Your task to perform on an android device: allow notifications from all sites in the chrome app Image 0: 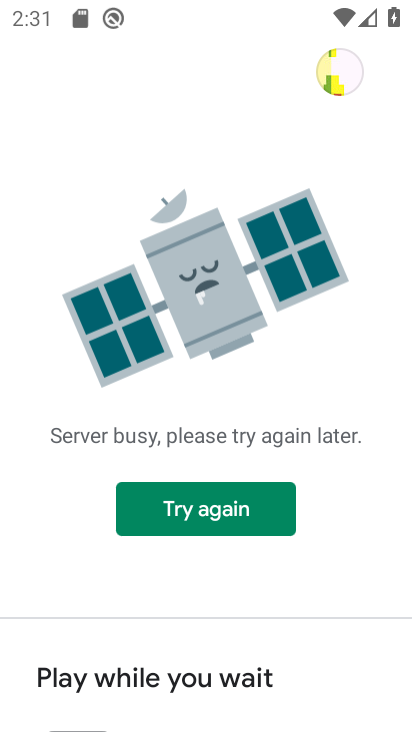
Step 0: press home button
Your task to perform on an android device: allow notifications from all sites in the chrome app Image 1: 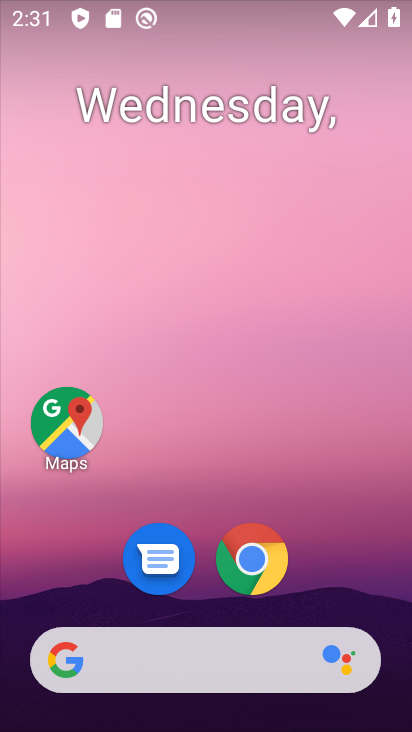
Step 1: drag from (270, 696) to (259, 253)
Your task to perform on an android device: allow notifications from all sites in the chrome app Image 2: 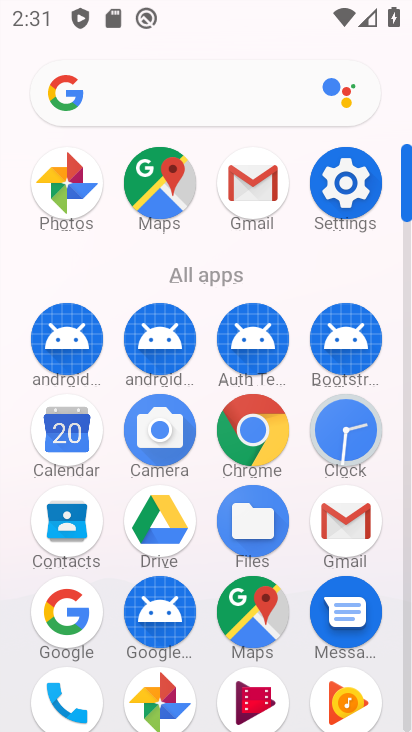
Step 2: click (236, 425)
Your task to perform on an android device: allow notifications from all sites in the chrome app Image 3: 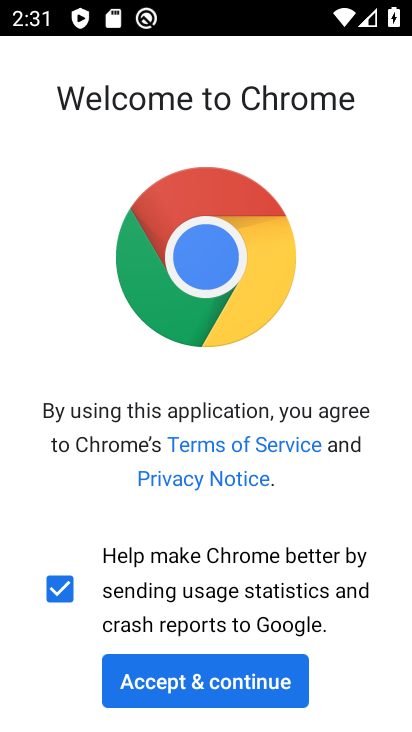
Step 3: click (179, 671)
Your task to perform on an android device: allow notifications from all sites in the chrome app Image 4: 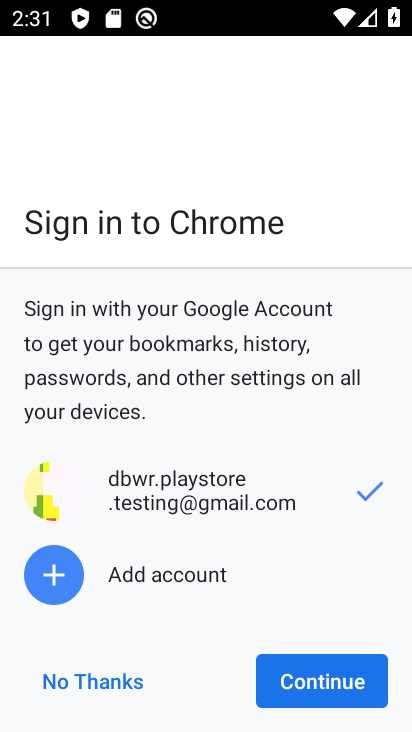
Step 4: click (308, 688)
Your task to perform on an android device: allow notifications from all sites in the chrome app Image 5: 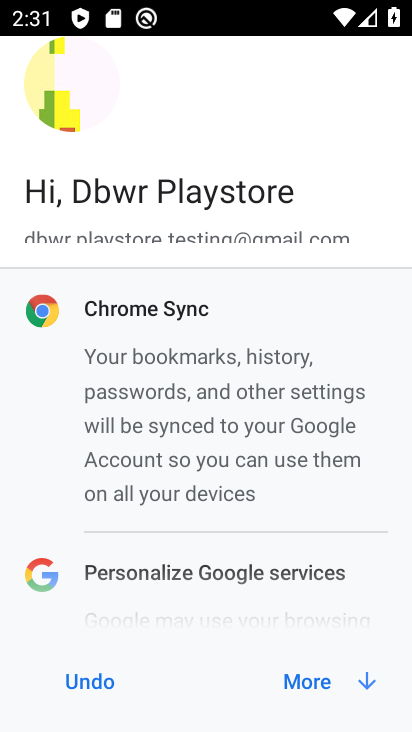
Step 5: click (359, 670)
Your task to perform on an android device: allow notifications from all sites in the chrome app Image 6: 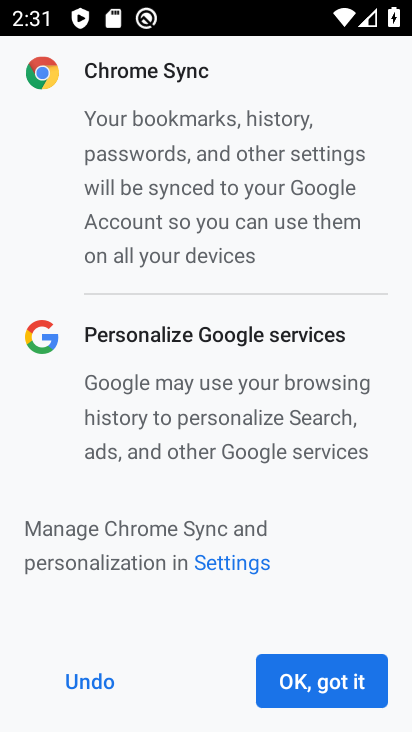
Step 6: click (335, 672)
Your task to perform on an android device: allow notifications from all sites in the chrome app Image 7: 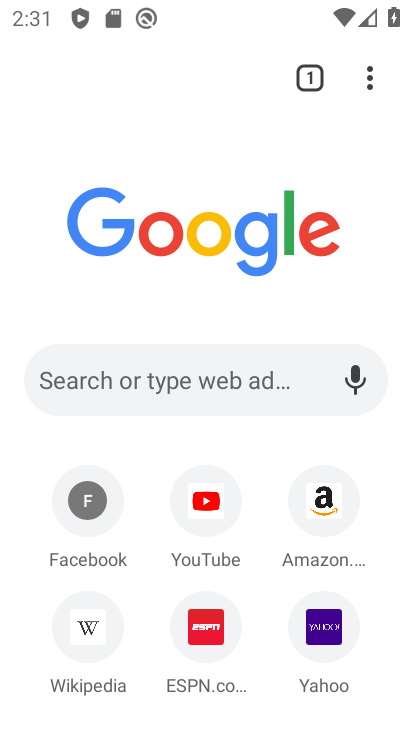
Step 7: click (359, 87)
Your task to perform on an android device: allow notifications from all sites in the chrome app Image 8: 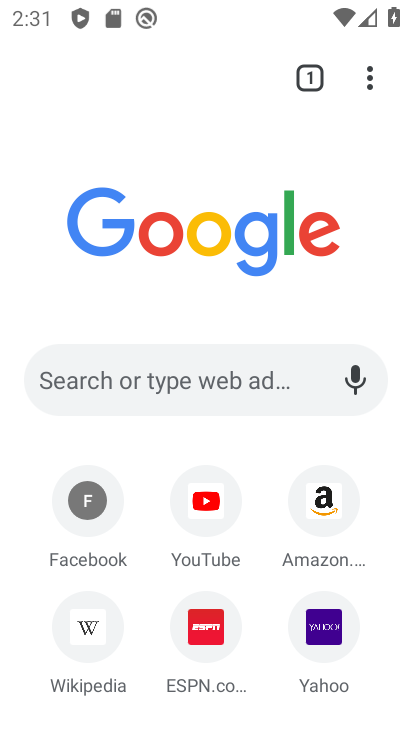
Step 8: click (367, 83)
Your task to perform on an android device: allow notifications from all sites in the chrome app Image 9: 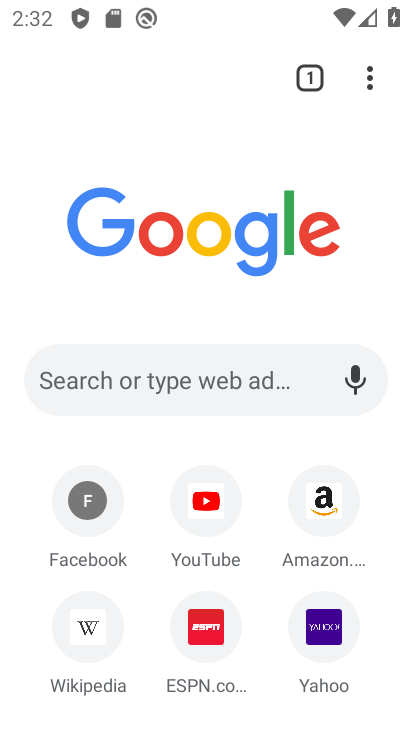
Step 9: click (365, 81)
Your task to perform on an android device: allow notifications from all sites in the chrome app Image 10: 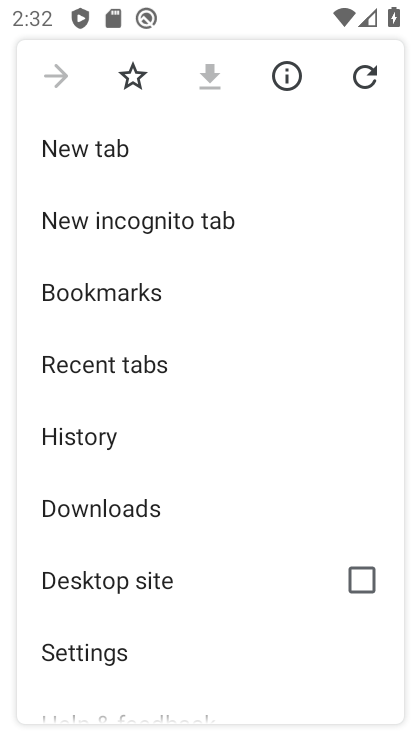
Step 10: click (88, 653)
Your task to perform on an android device: allow notifications from all sites in the chrome app Image 11: 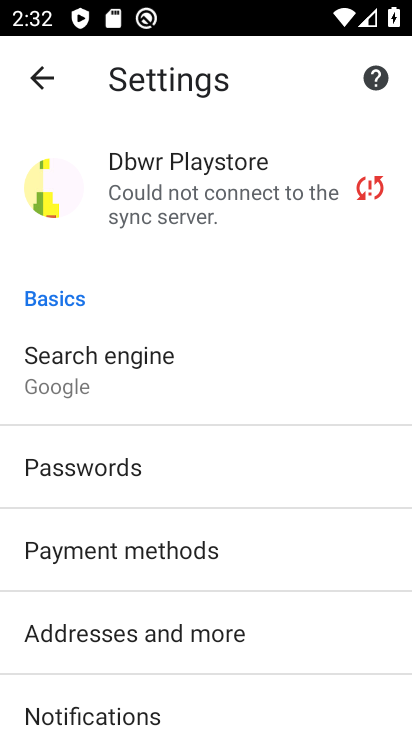
Step 11: drag from (126, 563) to (174, 406)
Your task to perform on an android device: allow notifications from all sites in the chrome app Image 12: 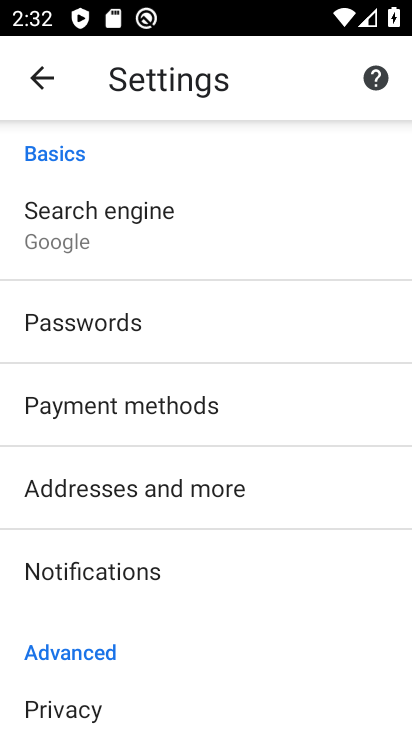
Step 12: drag from (72, 576) to (92, 442)
Your task to perform on an android device: allow notifications from all sites in the chrome app Image 13: 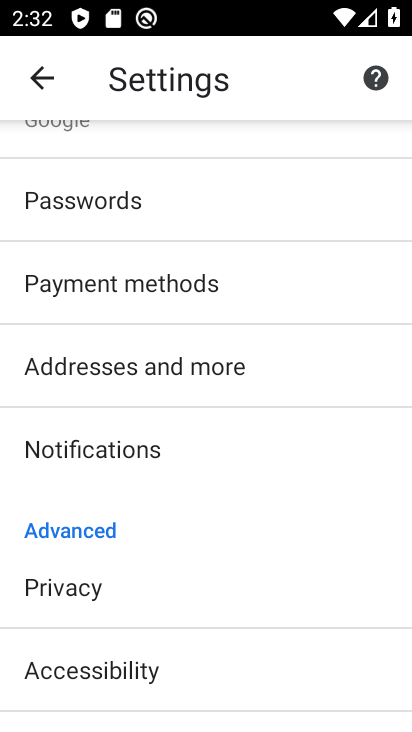
Step 13: drag from (84, 532) to (116, 457)
Your task to perform on an android device: allow notifications from all sites in the chrome app Image 14: 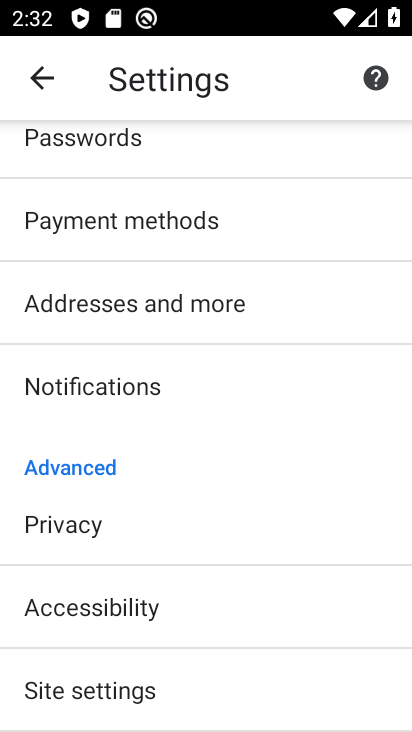
Step 14: click (63, 695)
Your task to perform on an android device: allow notifications from all sites in the chrome app Image 15: 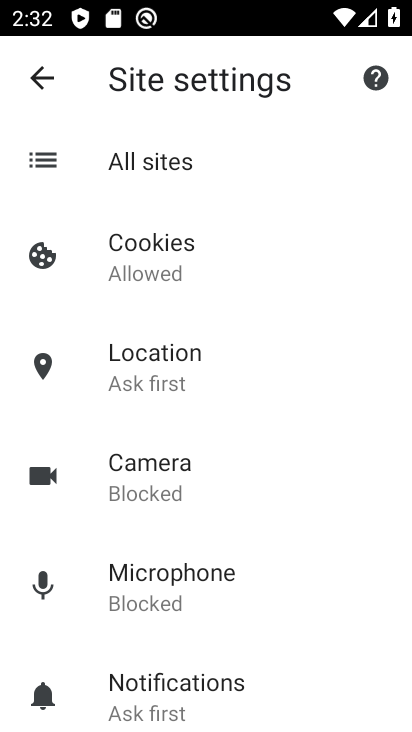
Step 15: click (144, 677)
Your task to perform on an android device: allow notifications from all sites in the chrome app Image 16: 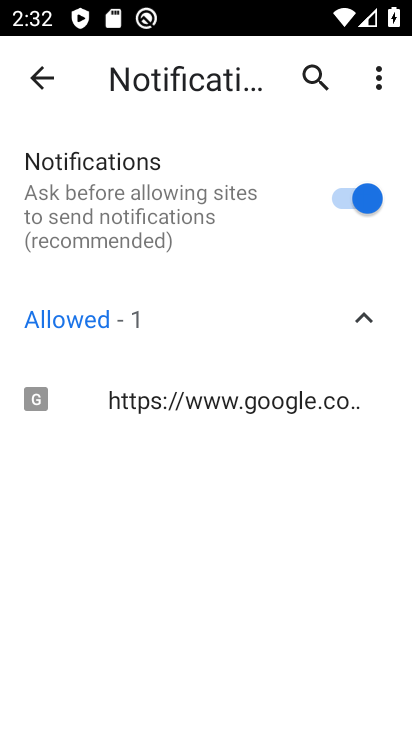
Step 16: click (321, 195)
Your task to perform on an android device: allow notifications from all sites in the chrome app Image 17: 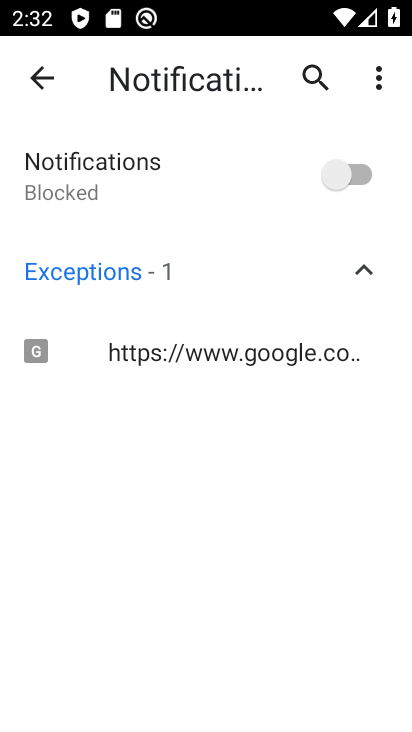
Step 17: click (324, 199)
Your task to perform on an android device: allow notifications from all sites in the chrome app Image 18: 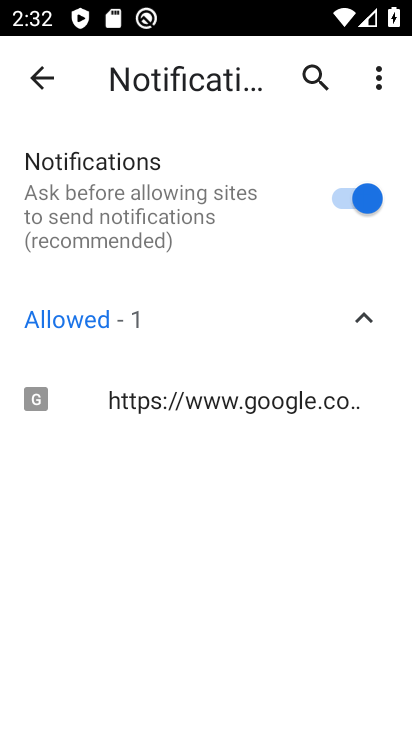
Step 18: task complete